Your task to perform on an android device: Search for pizza restaurants on Maps Image 0: 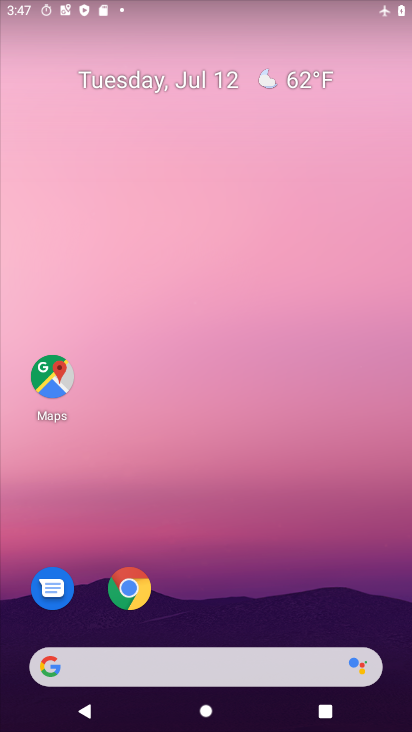
Step 0: drag from (173, 46) to (162, 3)
Your task to perform on an android device: Search for pizza restaurants on Maps Image 1: 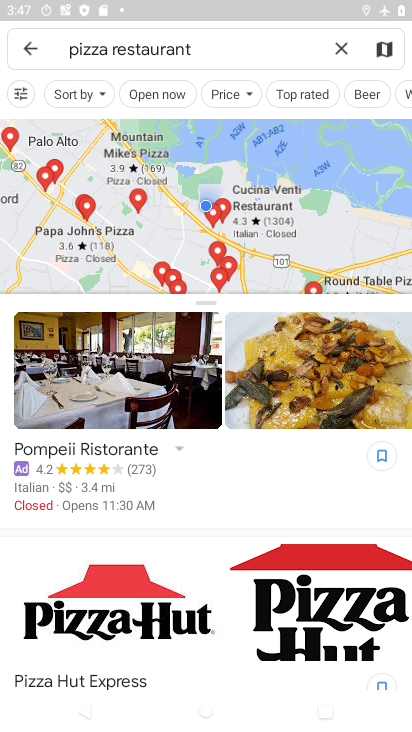
Step 1: task complete